Your task to perform on an android device: change the clock style Image 0: 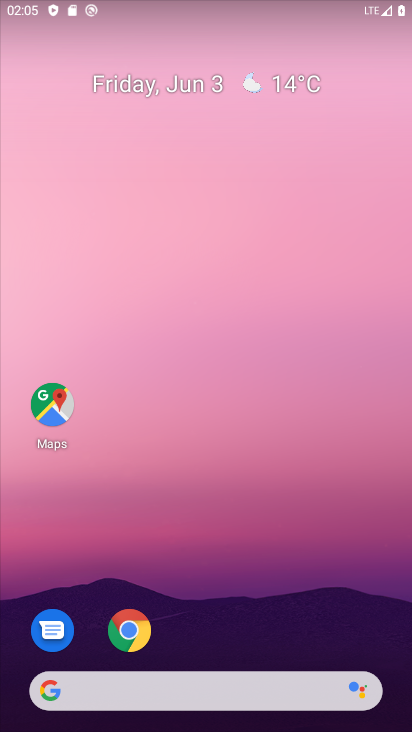
Step 0: drag from (393, 708) to (315, 14)
Your task to perform on an android device: change the clock style Image 1: 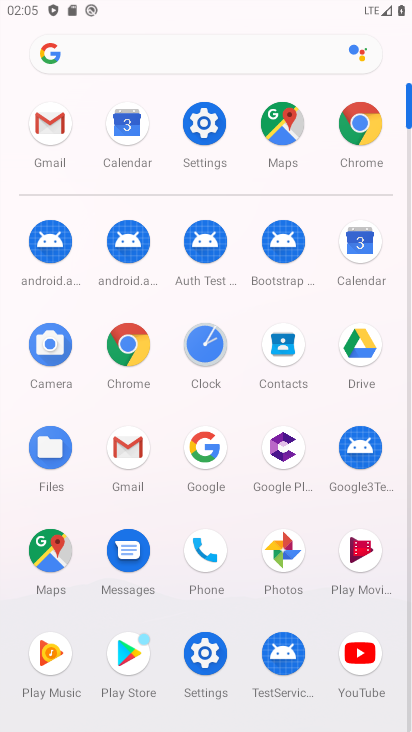
Step 1: click (198, 345)
Your task to perform on an android device: change the clock style Image 2: 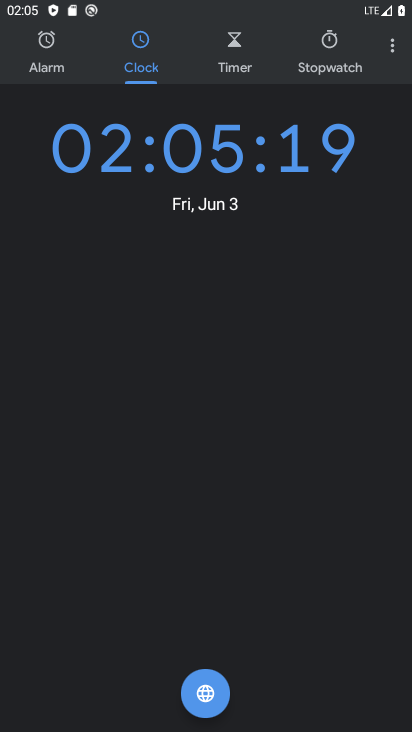
Step 2: click (392, 46)
Your task to perform on an android device: change the clock style Image 3: 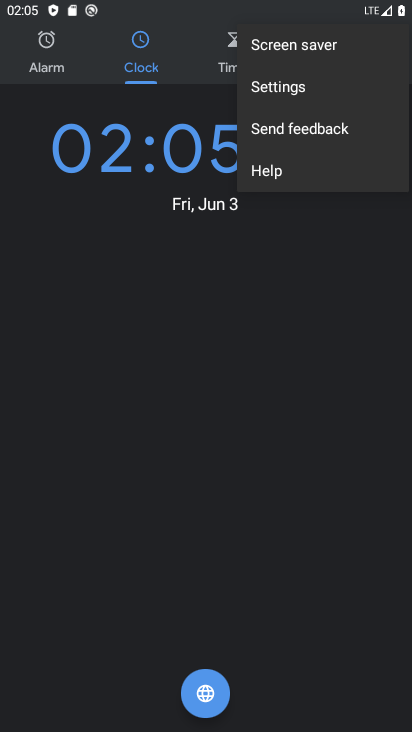
Step 3: click (277, 83)
Your task to perform on an android device: change the clock style Image 4: 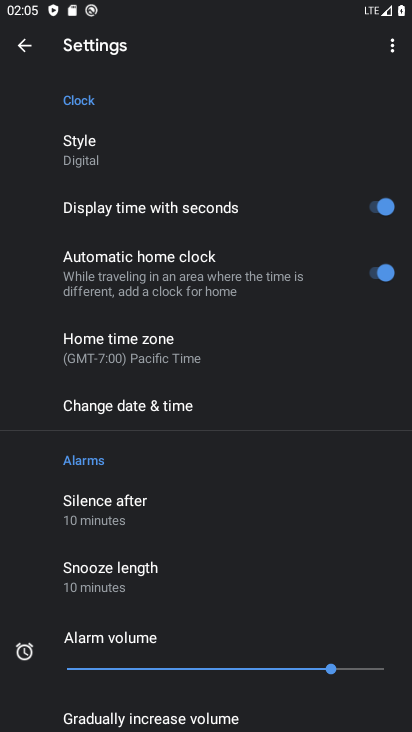
Step 4: click (91, 140)
Your task to perform on an android device: change the clock style Image 5: 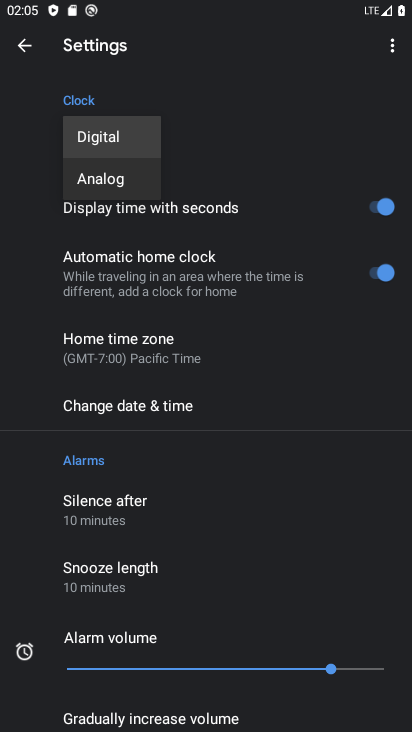
Step 5: click (123, 186)
Your task to perform on an android device: change the clock style Image 6: 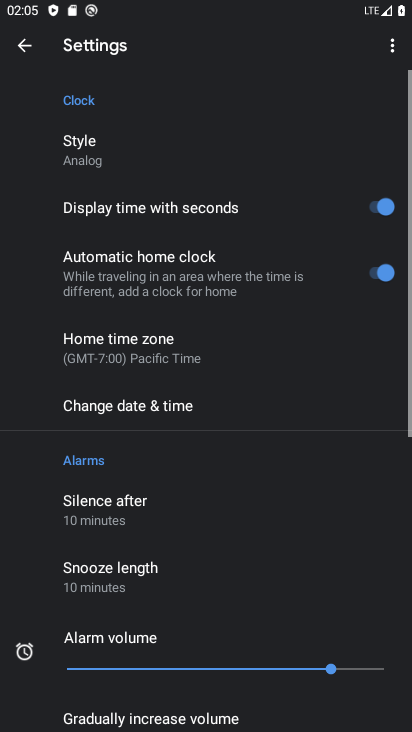
Step 6: task complete